Your task to perform on an android device: open app "Etsy: Buy & Sell Unique Items" (install if not already installed) and go to login screen Image 0: 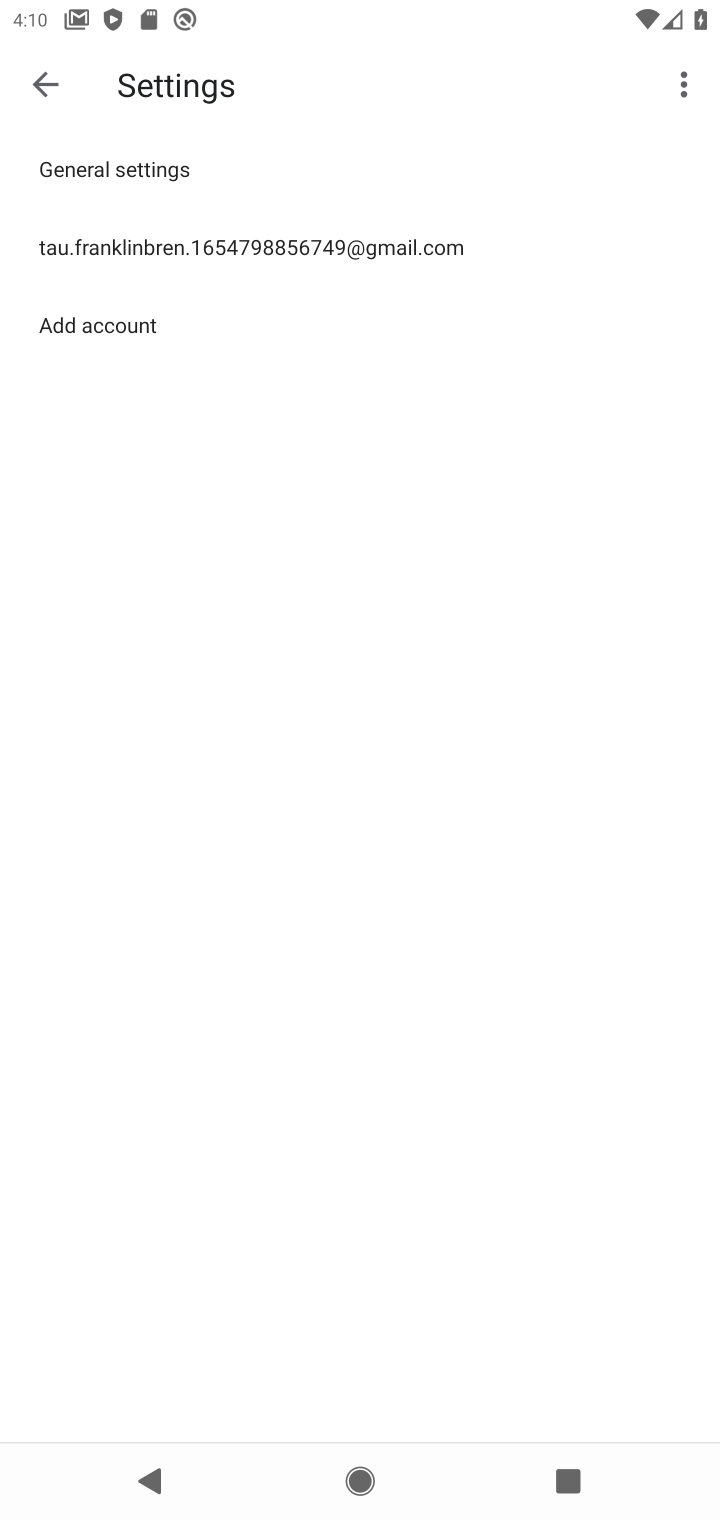
Step 0: press home button
Your task to perform on an android device: open app "Etsy: Buy & Sell Unique Items" (install if not already installed) and go to login screen Image 1: 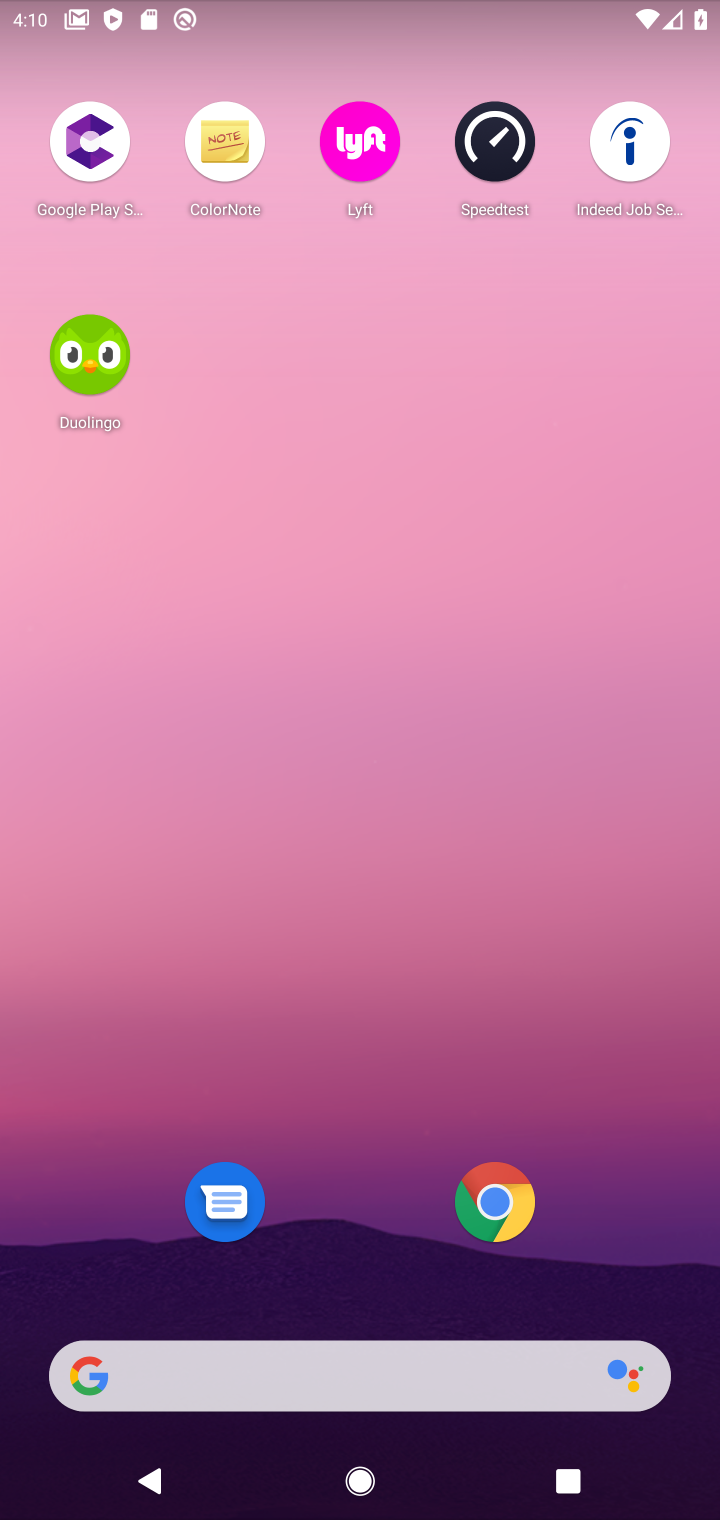
Step 1: drag from (309, 1142) to (337, 111)
Your task to perform on an android device: open app "Etsy: Buy & Sell Unique Items" (install if not already installed) and go to login screen Image 2: 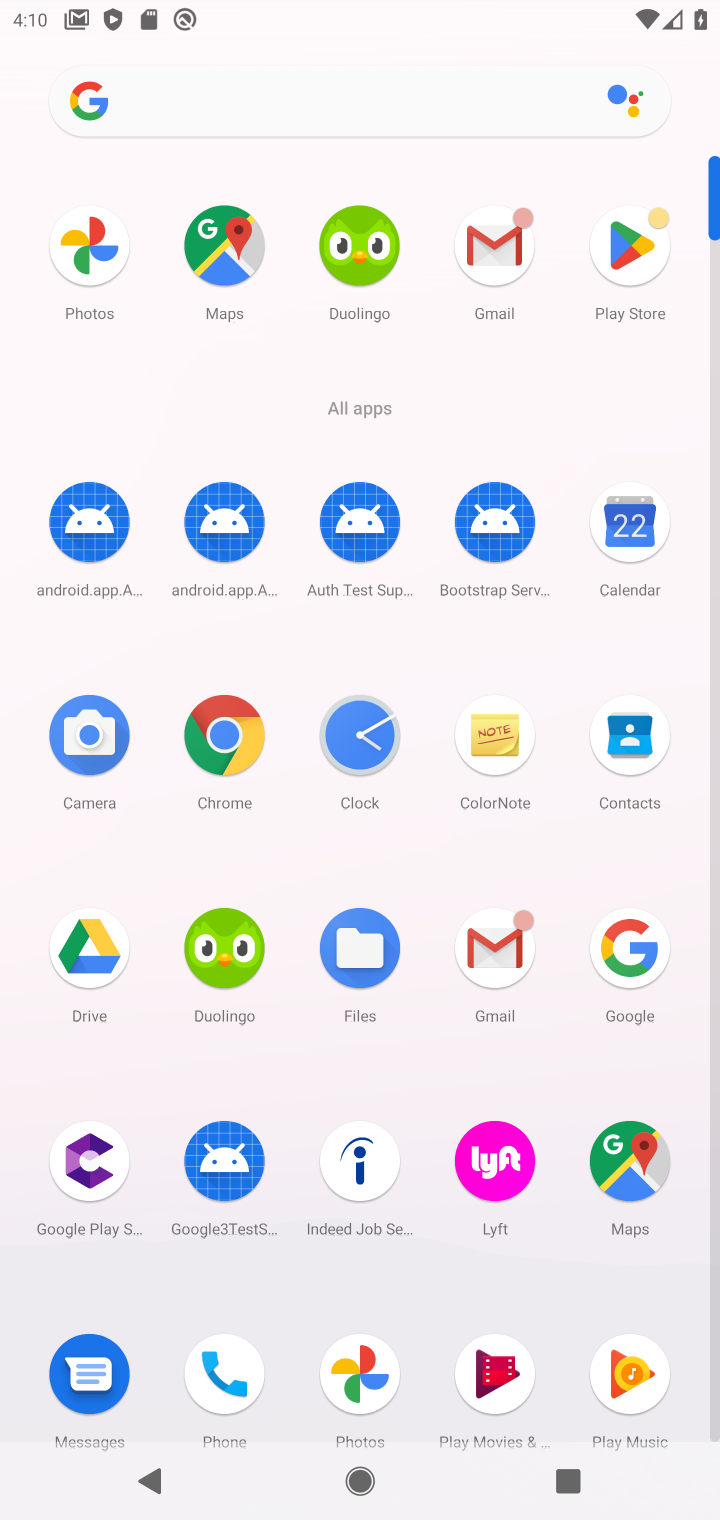
Step 2: click (642, 305)
Your task to perform on an android device: open app "Etsy: Buy & Sell Unique Items" (install if not already installed) and go to login screen Image 3: 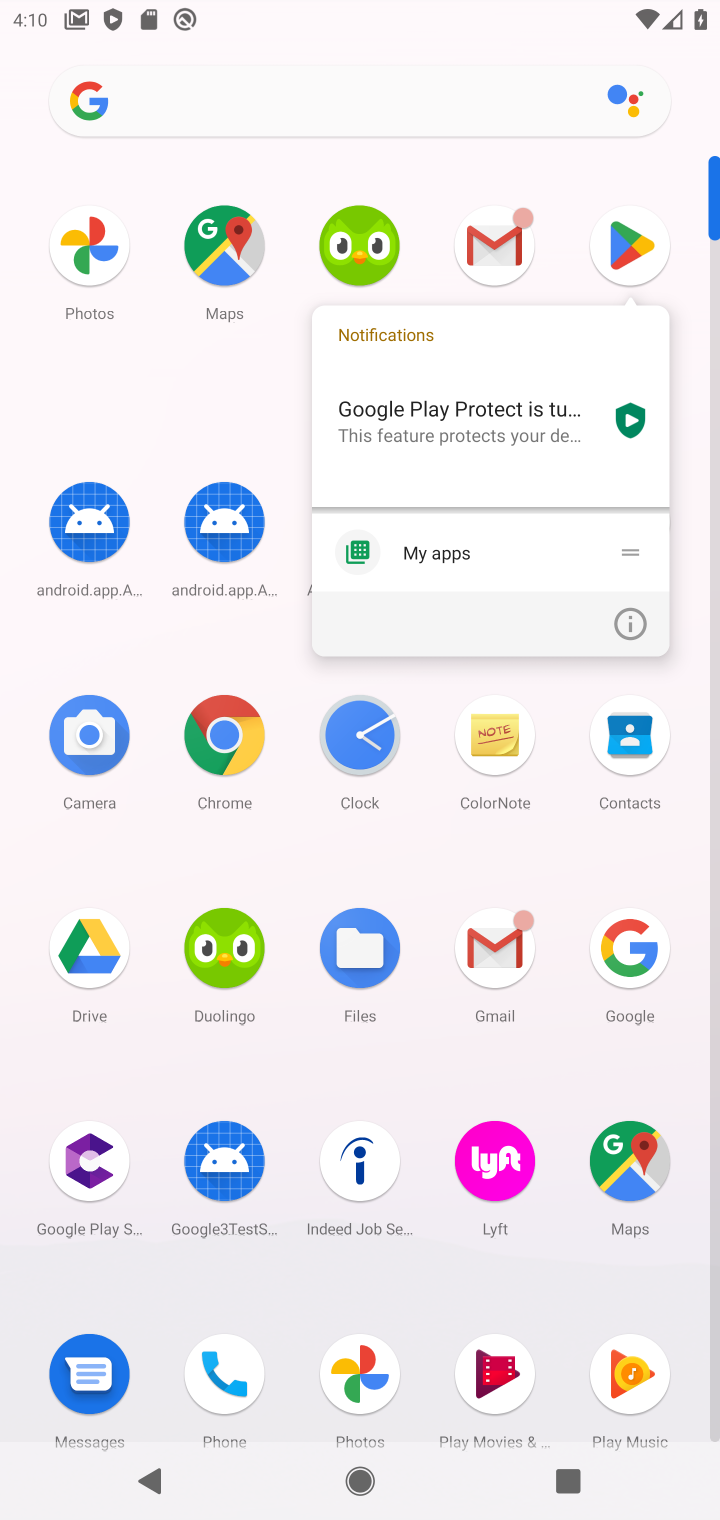
Step 3: click (629, 261)
Your task to perform on an android device: open app "Etsy: Buy & Sell Unique Items" (install if not already installed) and go to login screen Image 4: 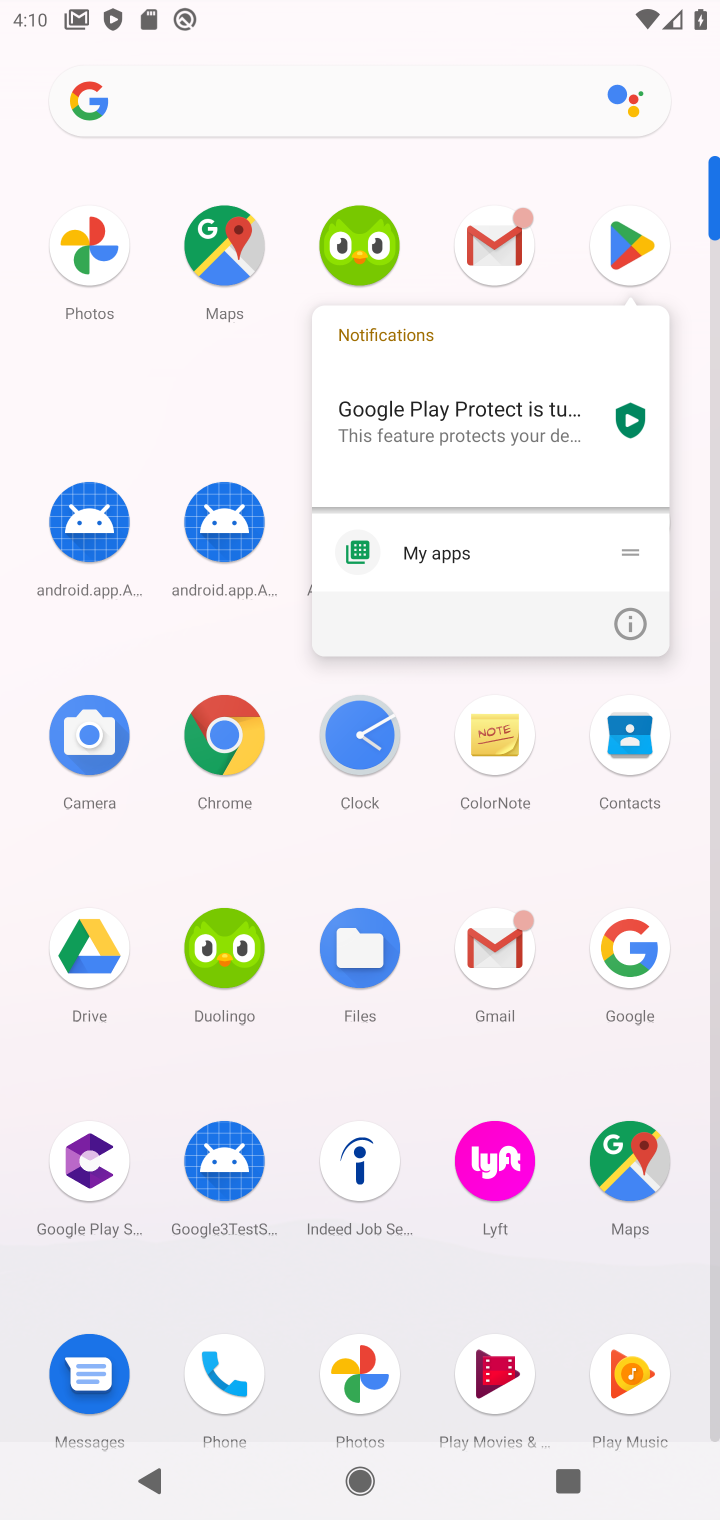
Step 4: click (629, 257)
Your task to perform on an android device: open app "Etsy: Buy & Sell Unique Items" (install if not already installed) and go to login screen Image 5: 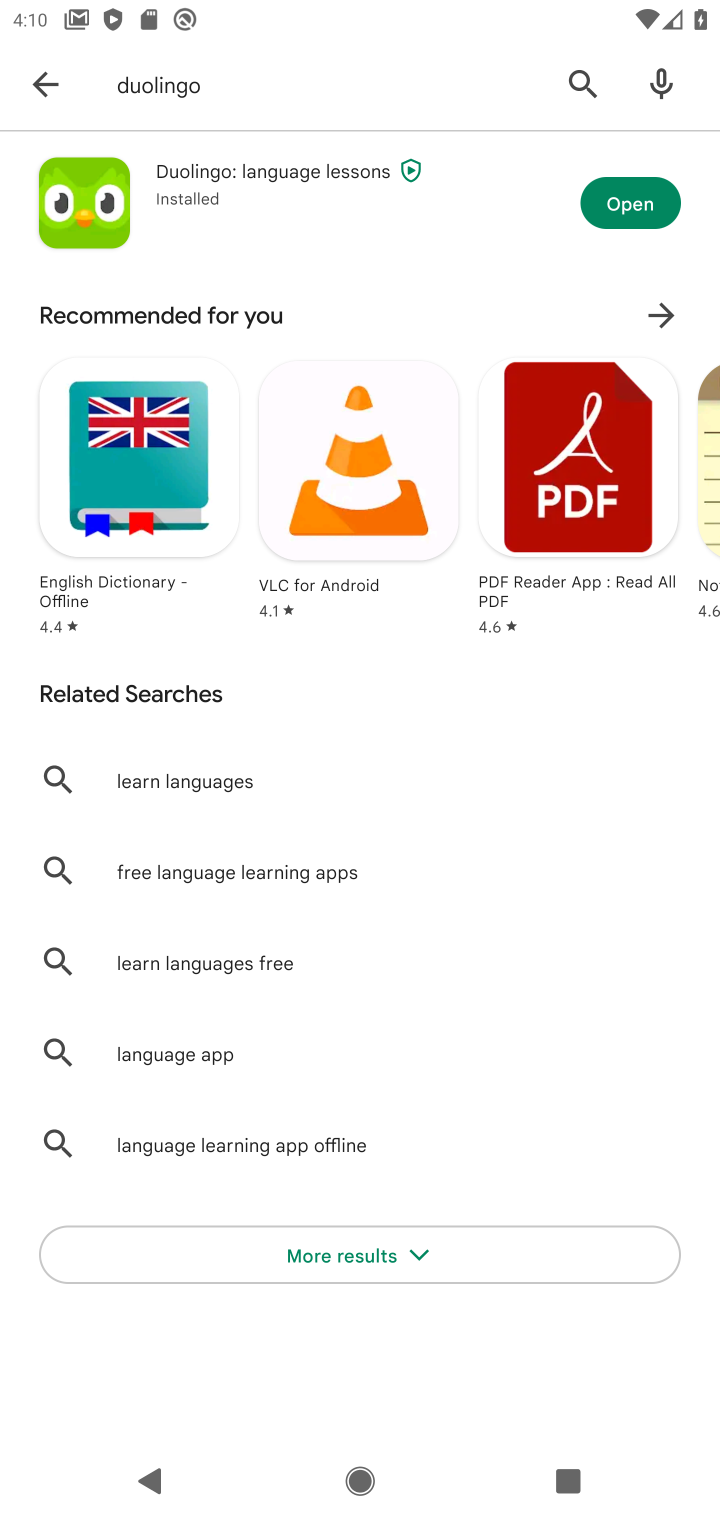
Step 5: click (293, 79)
Your task to perform on an android device: open app "Etsy: Buy & Sell Unique Items" (install if not already installed) and go to login screen Image 6: 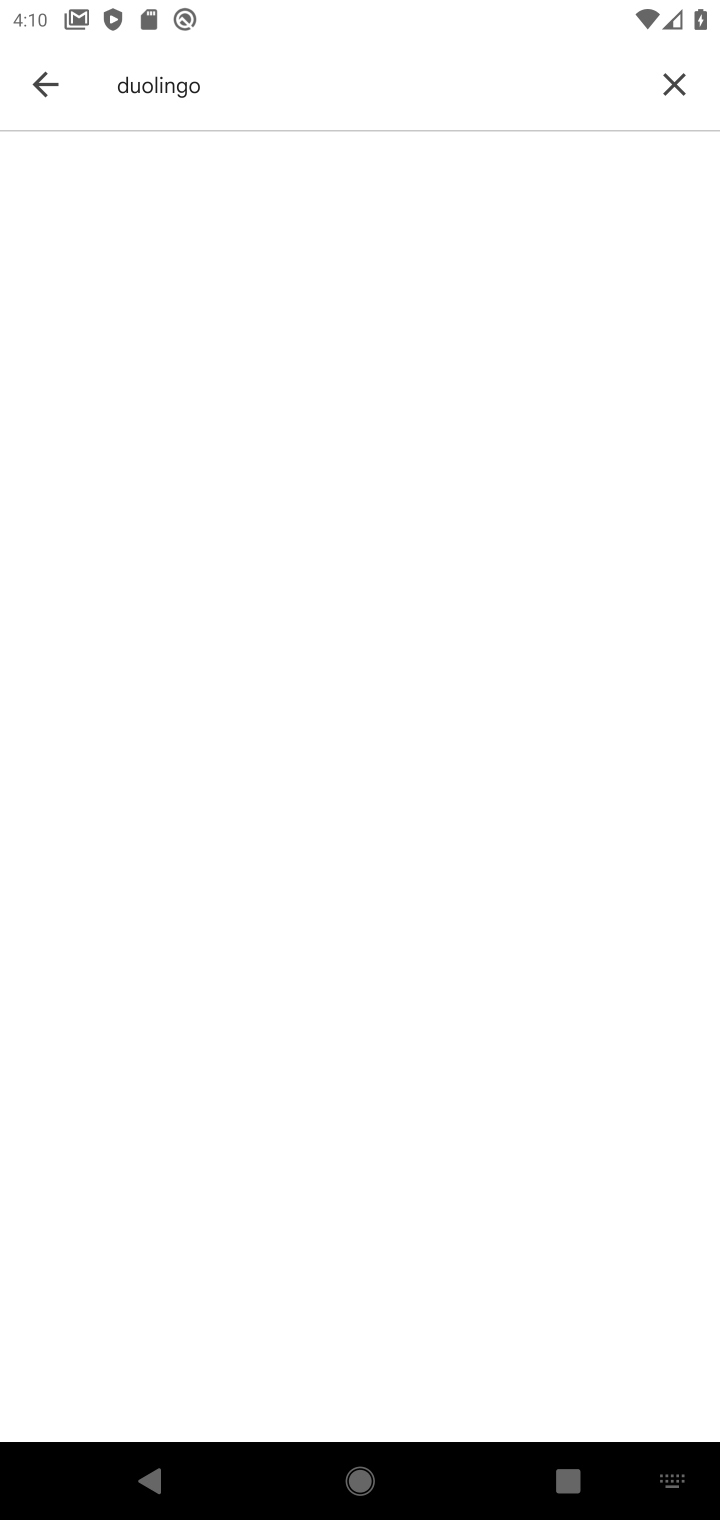
Step 6: click (678, 93)
Your task to perform on an android device: open app "Etsy: Buy & Sell Unique Items" (install if not already installed) and go to login screen Image 7: 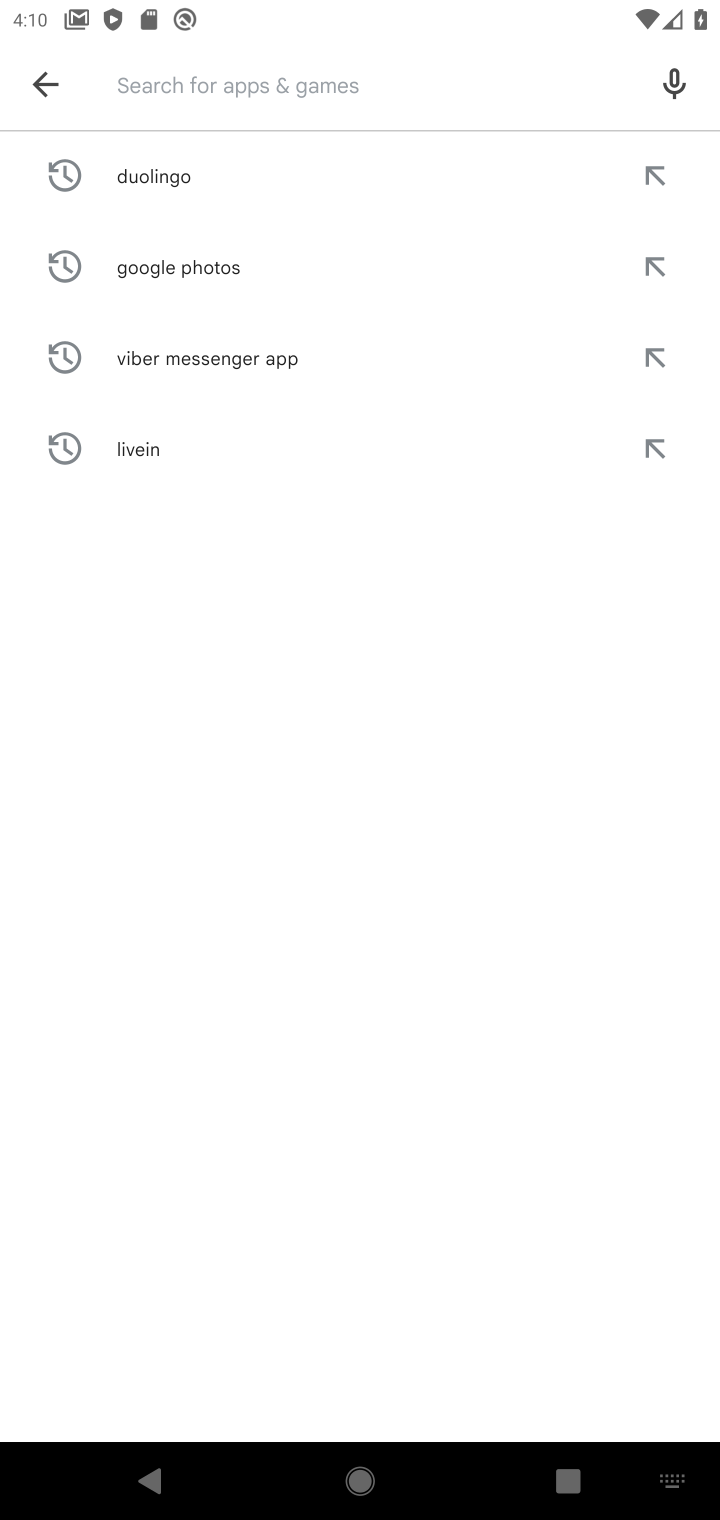
Step 7: type "etsy"
Your task to perform on an android device: open app "Etsy: Buy & Sell Unique Items" (install if not already installed) and go to login screen Image 8: 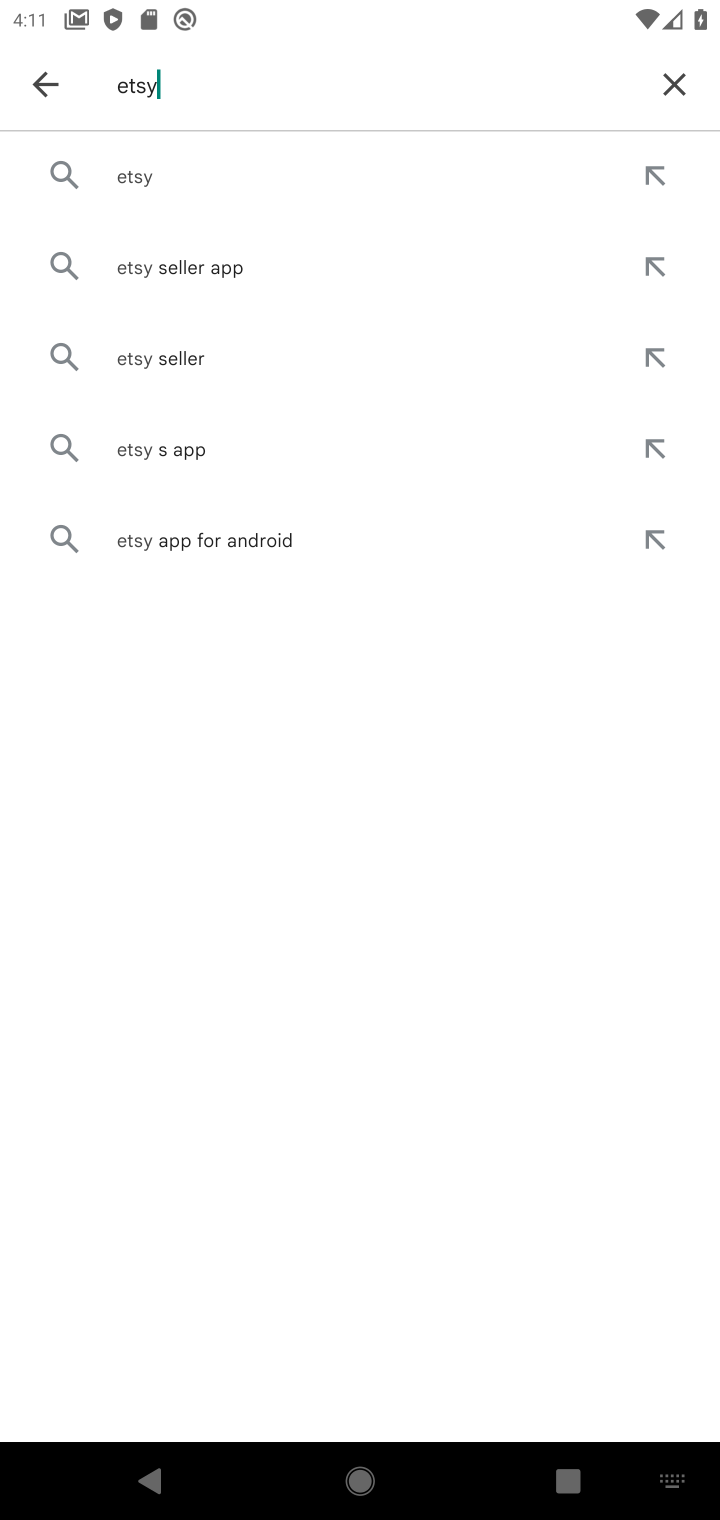
Step 8: click (126, 174)
Your task to perform on an android device: open app "Etsy: Buy & Sell Unique Items" (install if not already installed) and go to login screen Image 9: 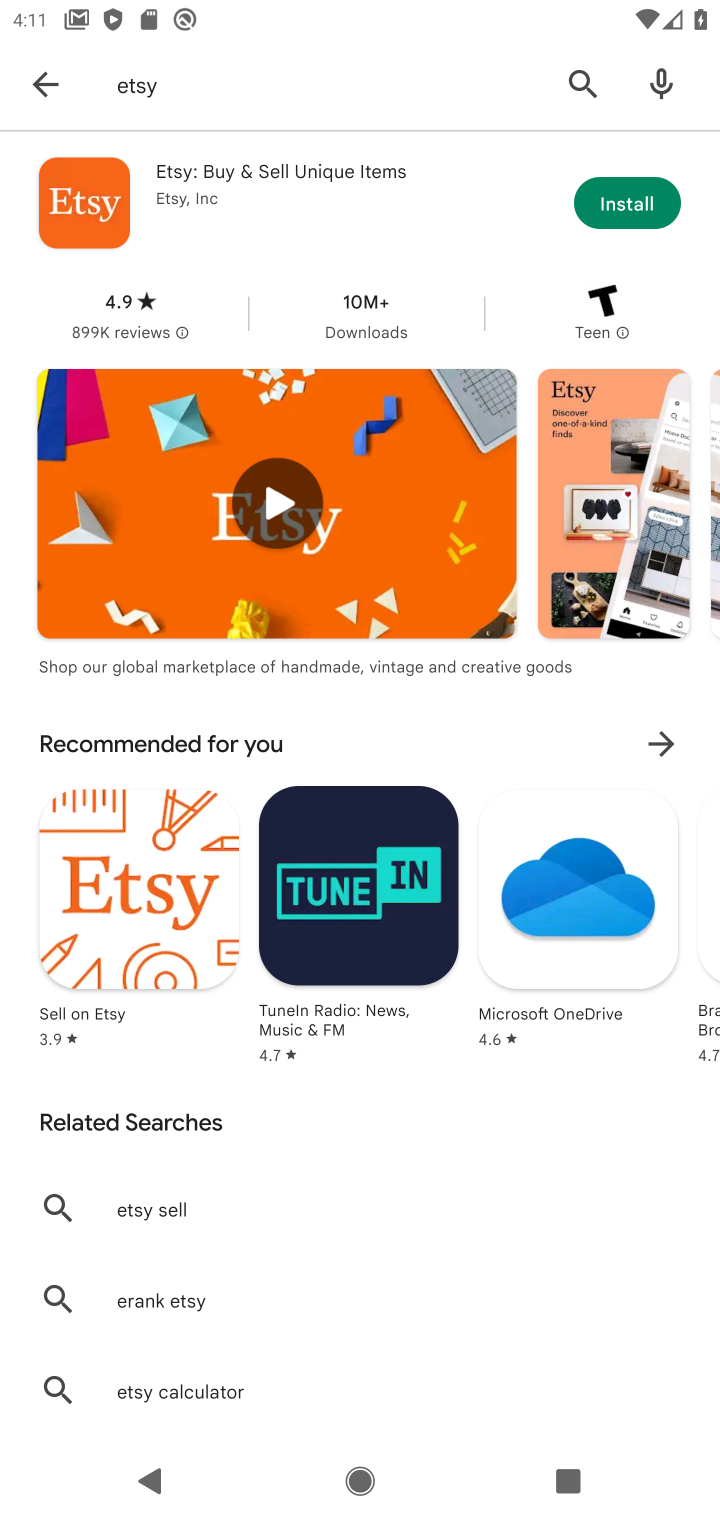
Step 9: click (615, 215)
Your task to perform on an android device: open app "Etsy: Buy & Sell Unique Items" (install if not already installed) and go to login screen Image 10: 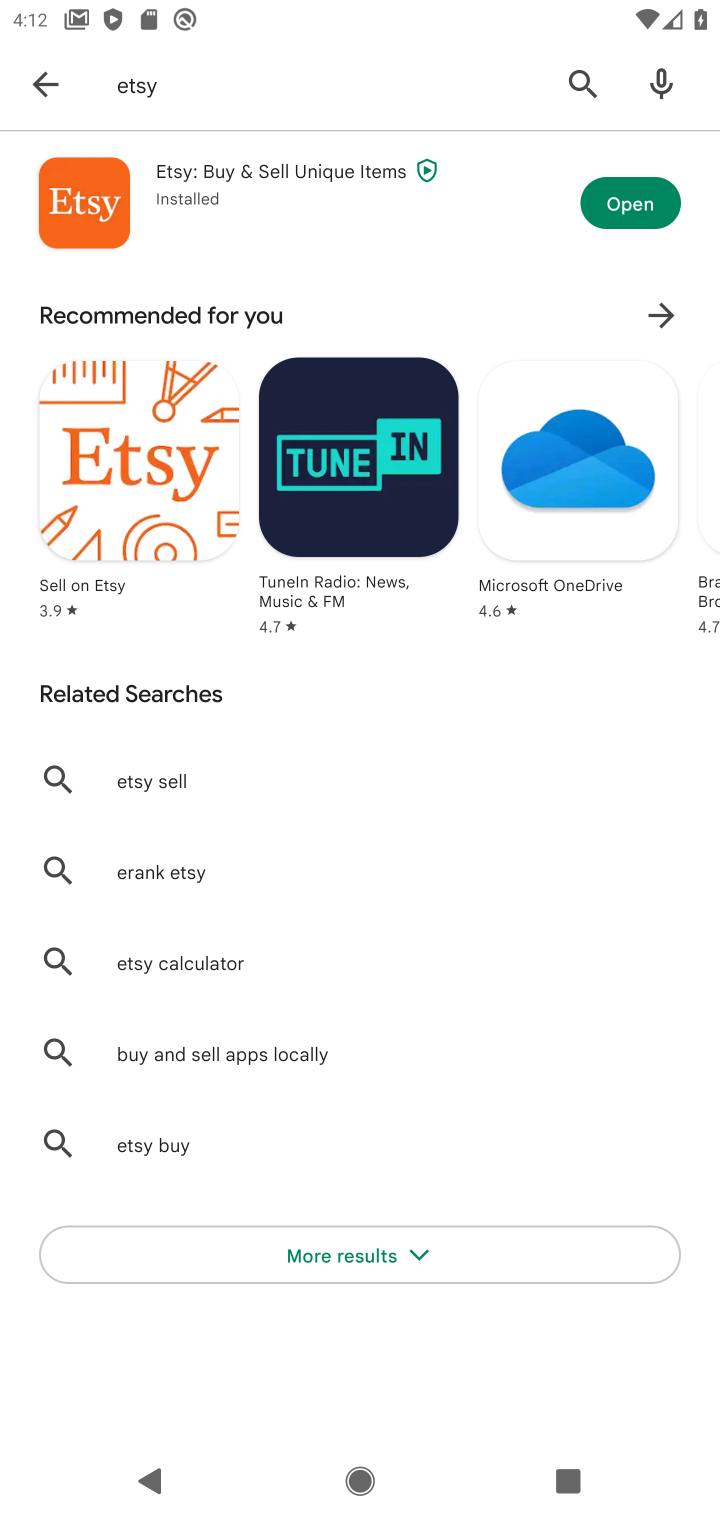
Step 10: click (657, 202)
Your task to perform on an android device: open app "Etsy: Buy & Sell Unique Items" (install if not already installed) and go to login screen Image 11: 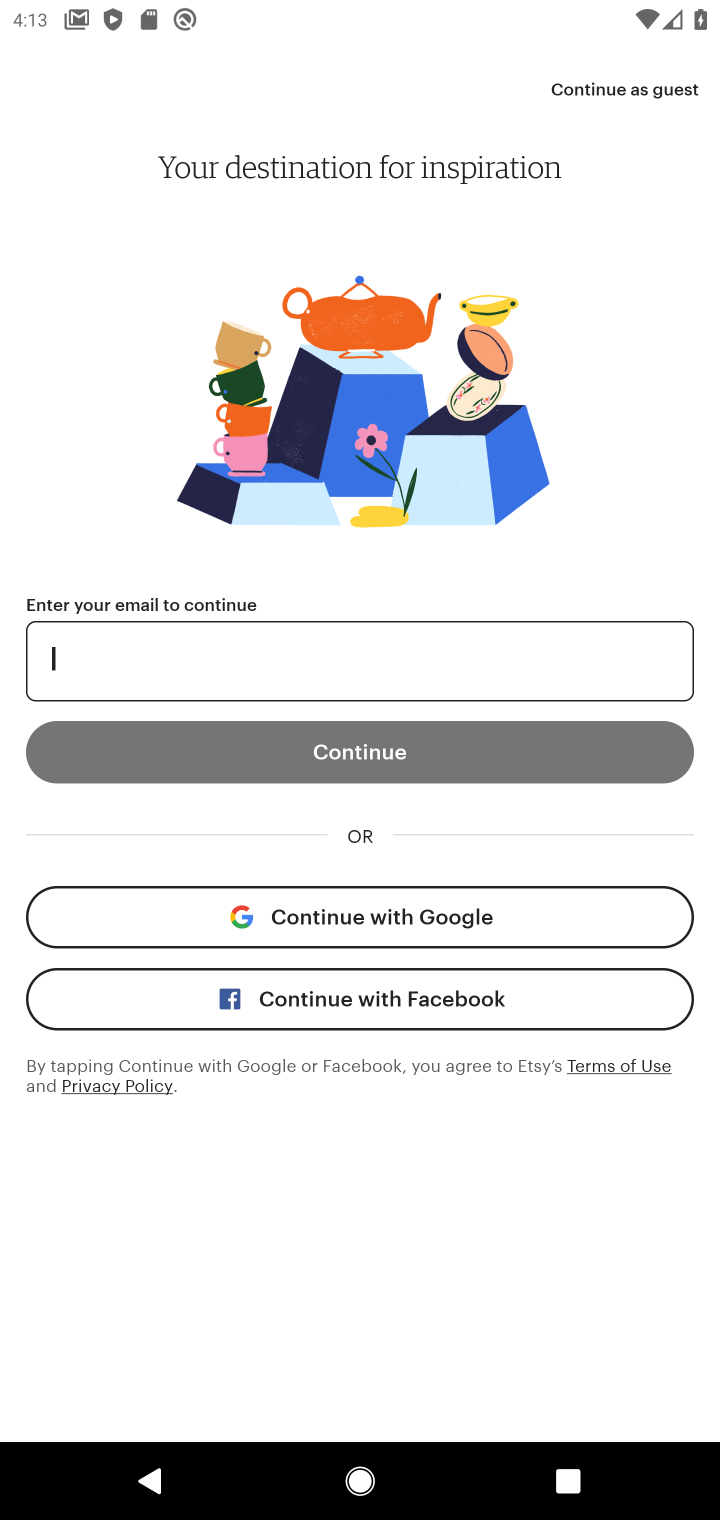
Step 11: task complete